Your task to perform on an android device: change keyboard looks Image 0: 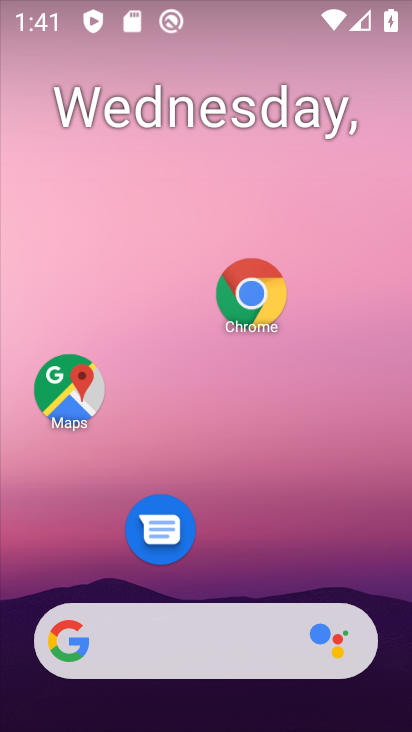
Step 0: drag from (261, 535) to (259, 200)
Your task to perform on an android device: change keyboard looks Image 1: 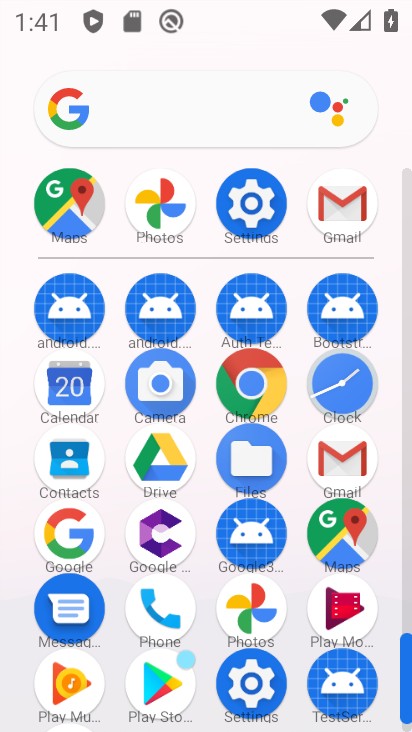
Step 1: click (259, 200)
Your task to perform on an android device: change keyboard looks Image 2: 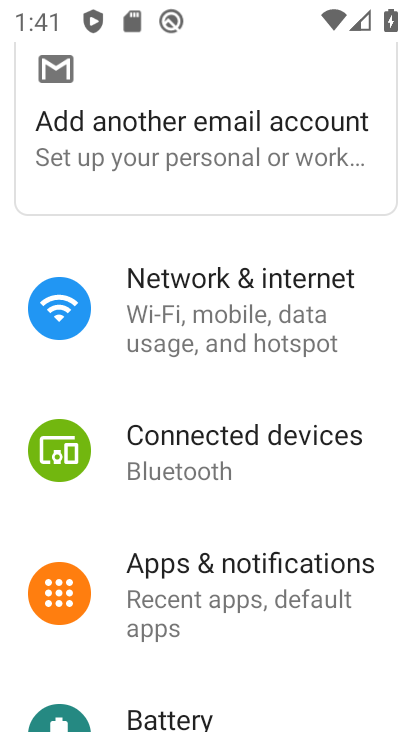
Step 2: drag from (265, 544) to (260, 359)
Your task to perform on an android device: change keyboard looks Image 3: 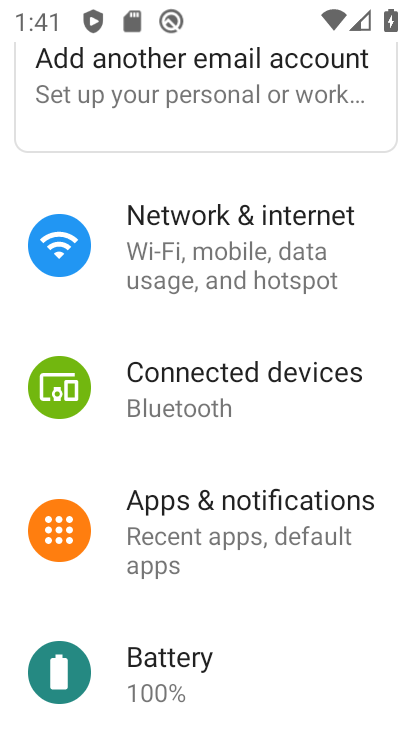
Step 3: drag from (288, 548) to (294, 214)
Your task to perform on an android device: change keyboard looks Image 4: 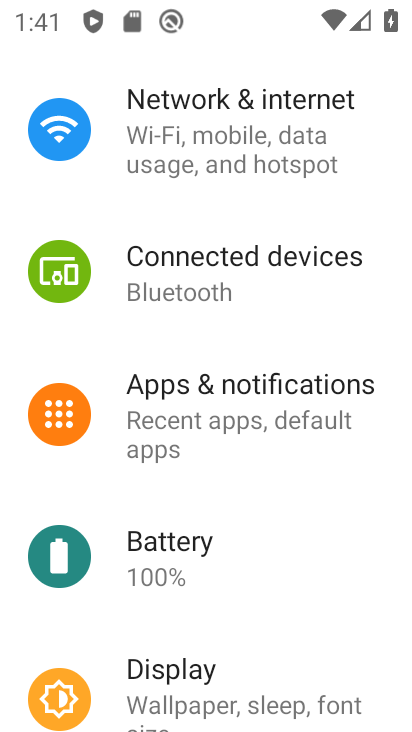
Step 4: drag from (309, 484) to (332, 17)
Your task to perform on an android device: change keyboard looks Image 5: 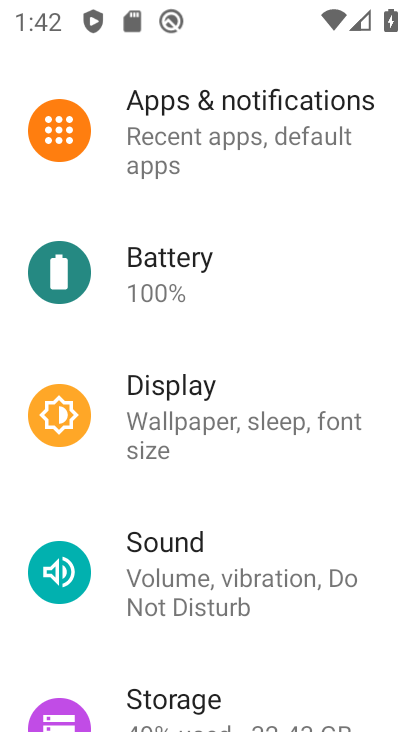
Step 5: drag from (335, 501) to (319, 149)
Your task to perform on an android device: change keyboard looks Image 6: 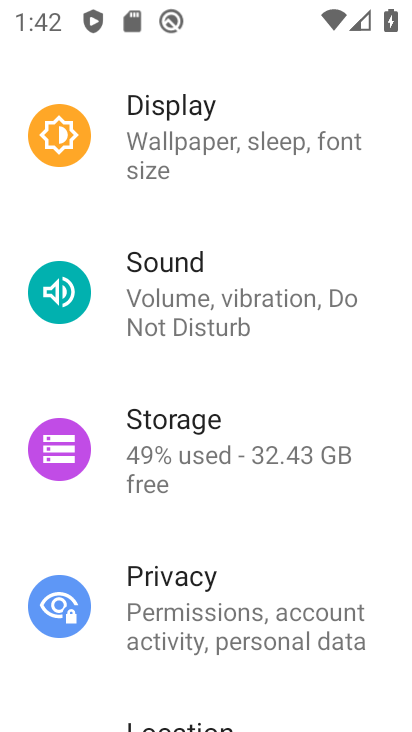
Step 6: drag from (334, 494) to (320, 167)
Your task to perform on an android device: change keyboard looks Image 7: 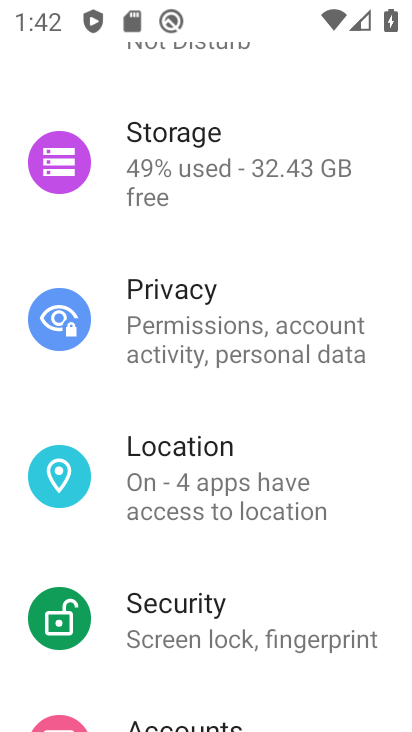
Step 7: drag from (272, 471) to (294, 170)
Your task to perform on an android device: change keyboard looks Image 8: 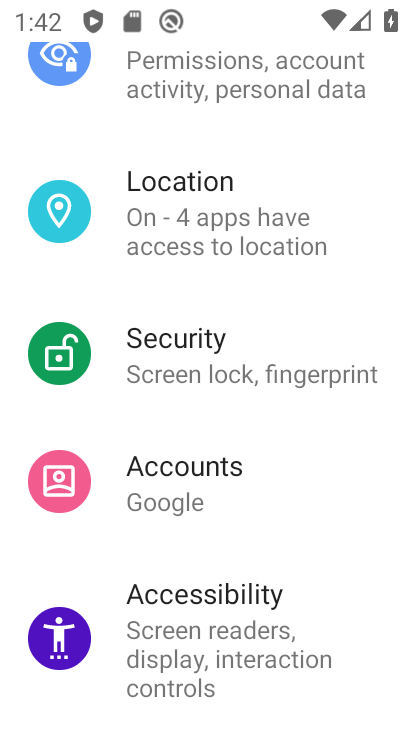
Step 8: drag from (209, 616) to (228, 368)
Your task to perform on an android device: change keyboard looks Image 9: 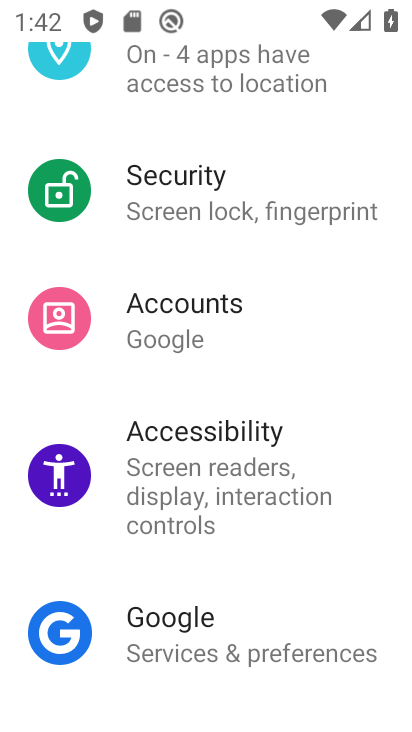
Step 9: drag from (231, 538) to (249, 385)
Your task to perform on an android device: change keyboard looks Image 10: 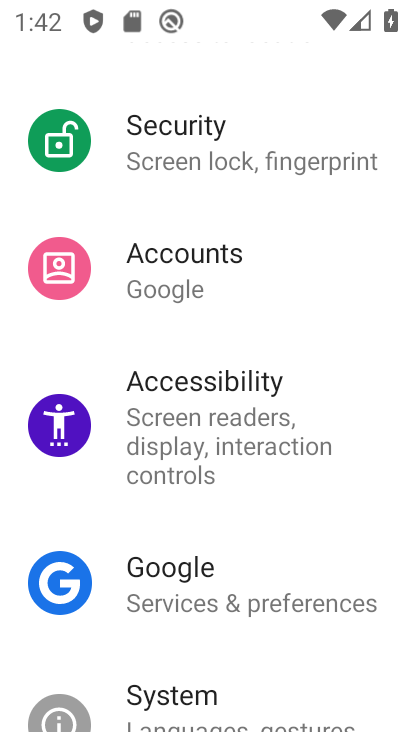
Step 10: drag from (253, 493) to (260, 270)
Your task to perform on an android device: change keyboard looks Image 11: 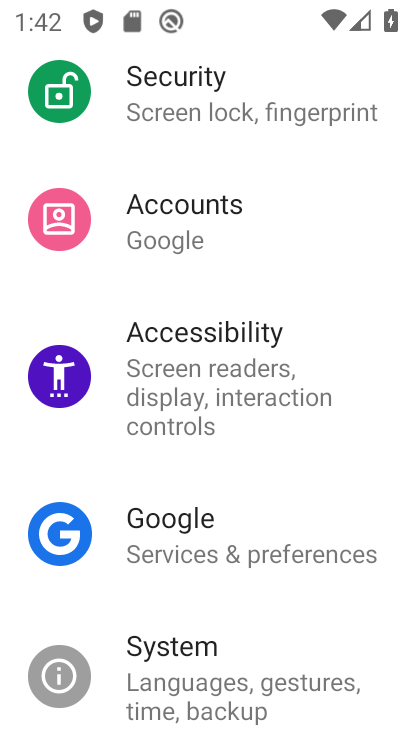
Step 11: click (214, 664)
Your task to perform on an android device: change keyboard looks Image 12: 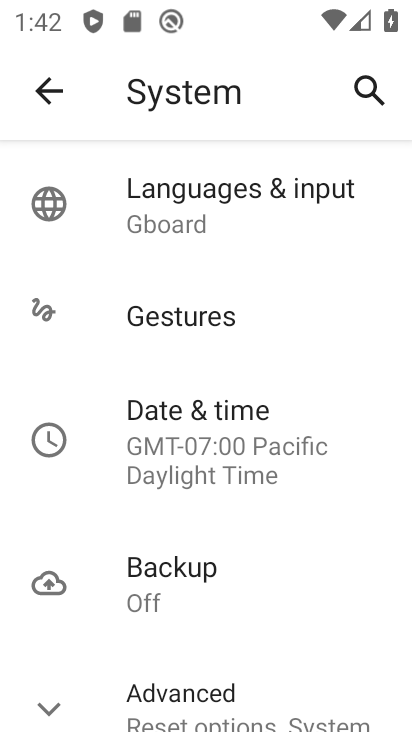
Step 12: drag from (230, 666) to (257, 454)
Your task to perform on an android device: change keyboard looks Image 13: 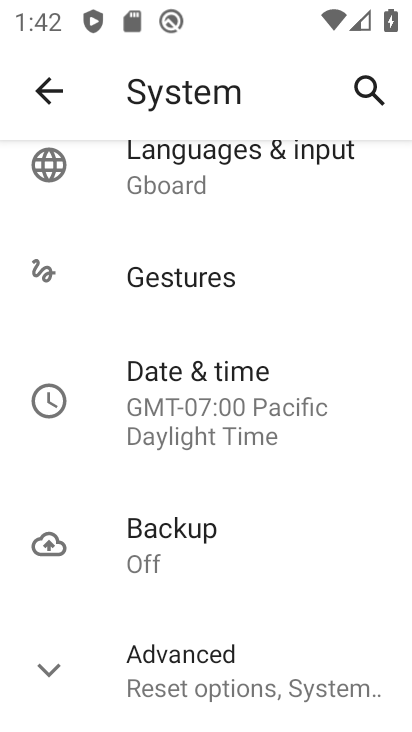
Step 13: drag from (241, 321) to (191, 708)
Your task to perform on an android device: change keyboard looks Image 14: 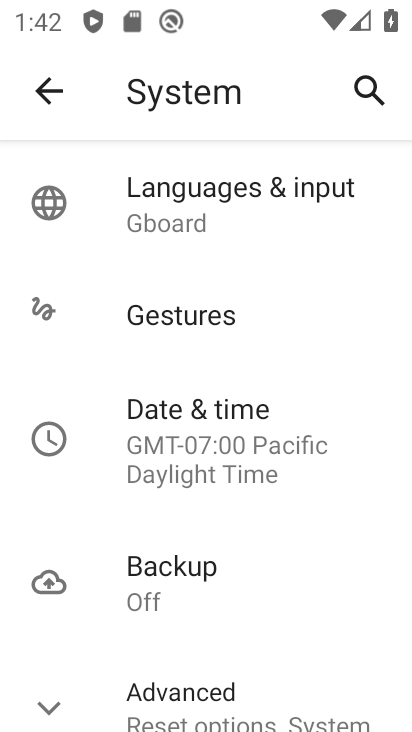
Step 14: click (252, 240)
Your task to perform on an android device: change keyboard looks Image 15: 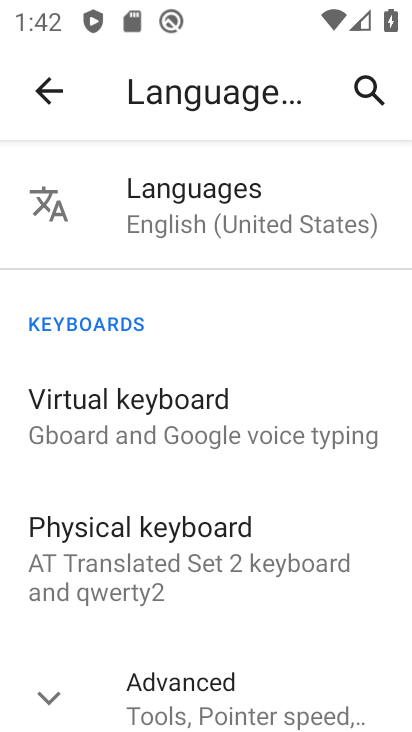
Step 15: click (201, 434)
Your task to perform on an android device: change keyboard looks Image 16: 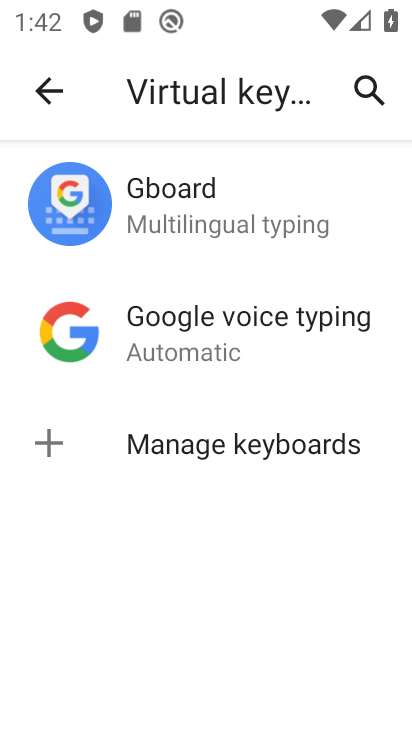
Step 16: click (255, 234)
Your task to perform on an android device: change keyboard looks Image 17: 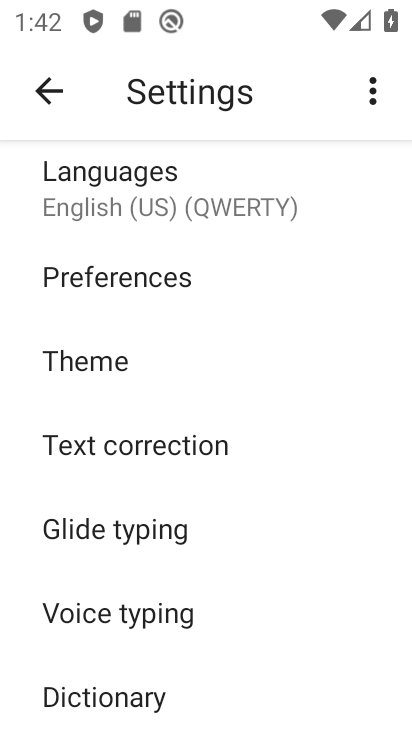
Step 17: click (142, 366)
Your task to perform on an android device: change keyboard looks Image 18: 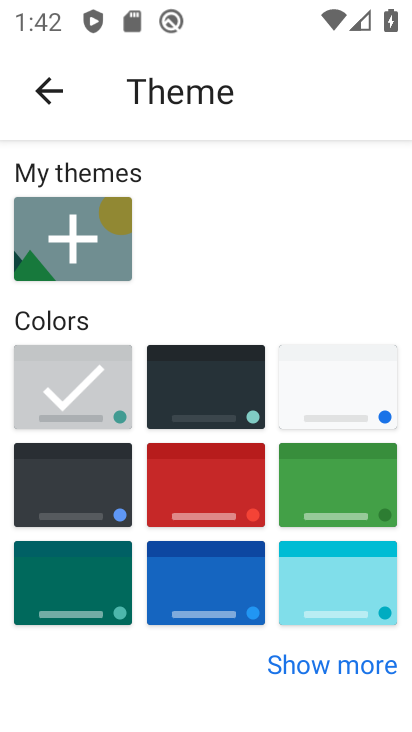
Step 18: click (334, 496)
Your task to perform on an android device: change keyboard looks Image 19: 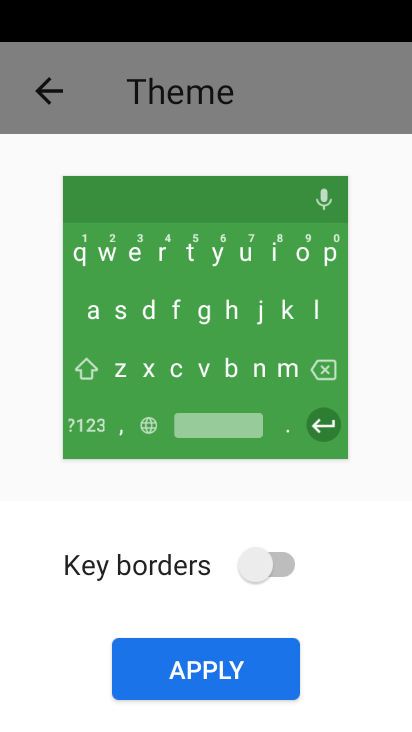
Step 19: click (246, 677)
Your task to perform on an android device: change keyboard looks Image 20: 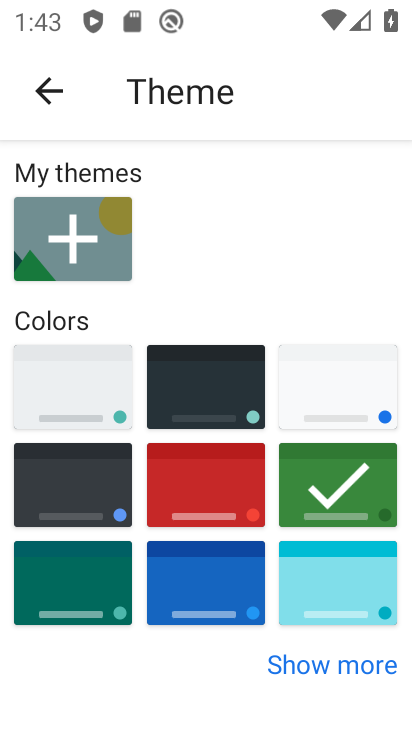
Step 20: task complete